Your task to perform on an android device: Open display settings Image 0: 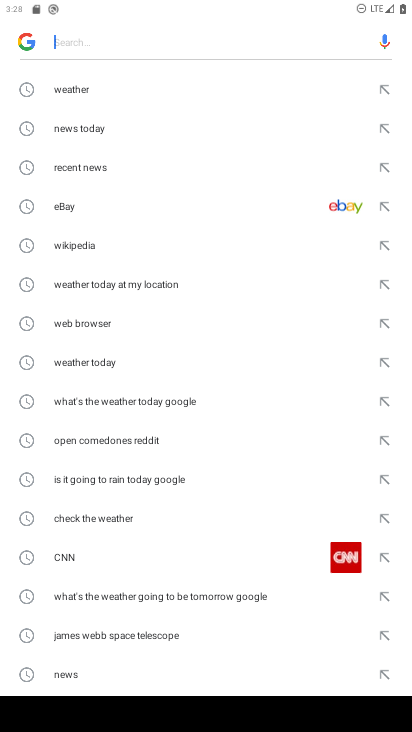
Step 0: press home button
Your task to perform on an android device: Open display settings Image 1: 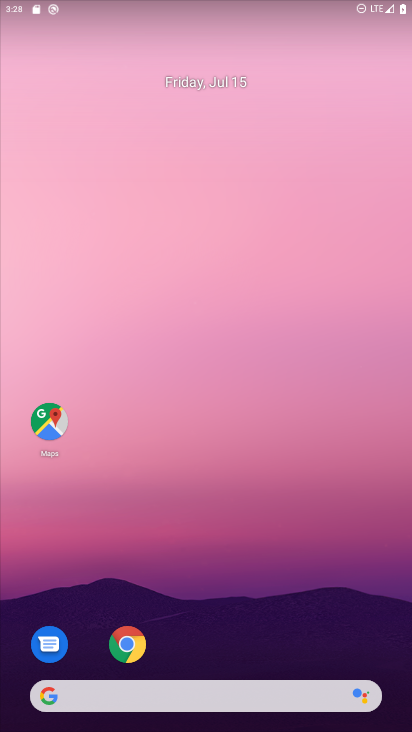
Step 1: drag from (41, 496) to (226, 78)
Your task to perform on an android device: Open display settings Image 2: 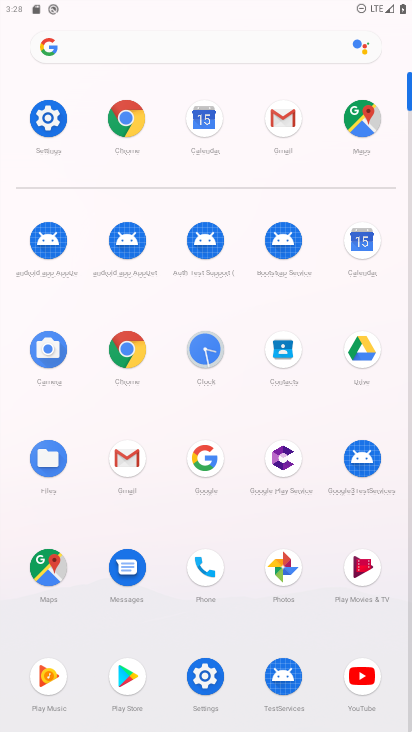
Step 2: click (51, 124)
Your task to perform on an android device: Open display settings Image 3: 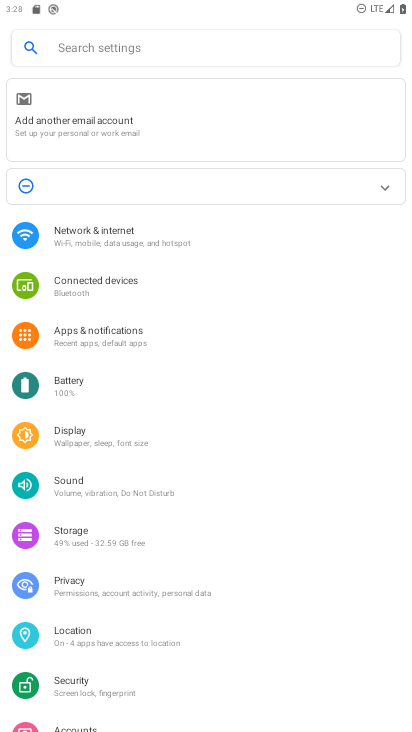
Step 3: drag from (102, 671) to (207, 283)
Your task to perform on an android device: Open display settings Image 4: 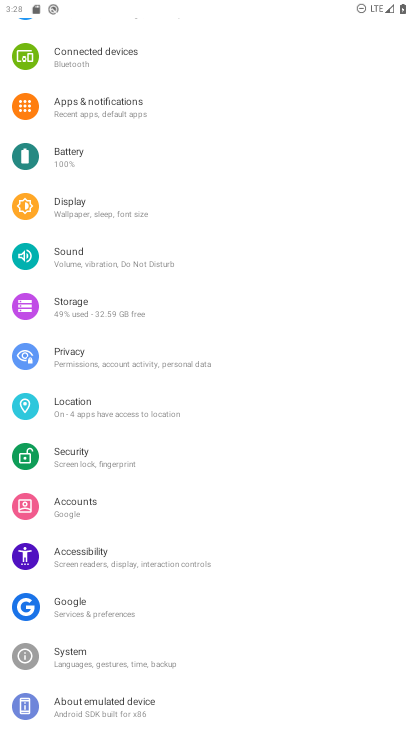
Step 4: drag from (154, 198) to (122, 645)
Your task to perform on an android device: Open display settings Image 5: 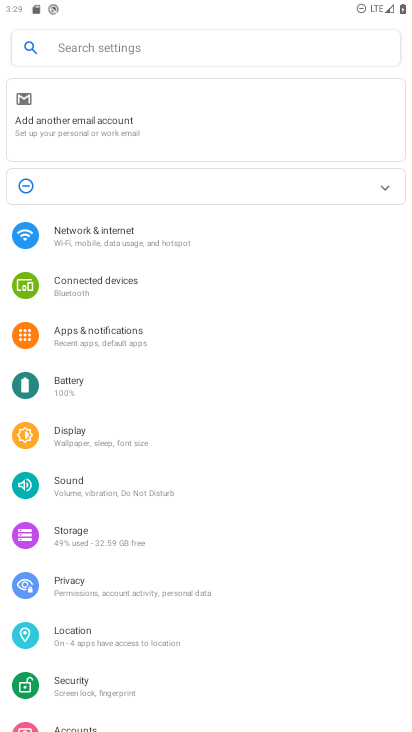
Step 5: click (117, 433)
Your task to perform on an android device: Open display settings Image 6: 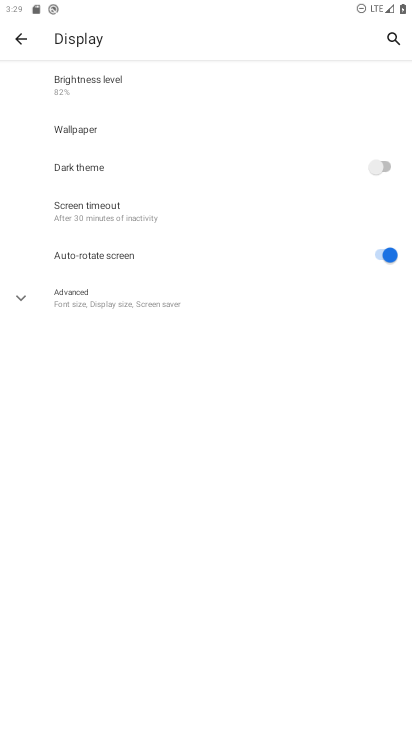
Step 6: task complete